Your task to perform on an android device: turn off sleep mode Image 0: 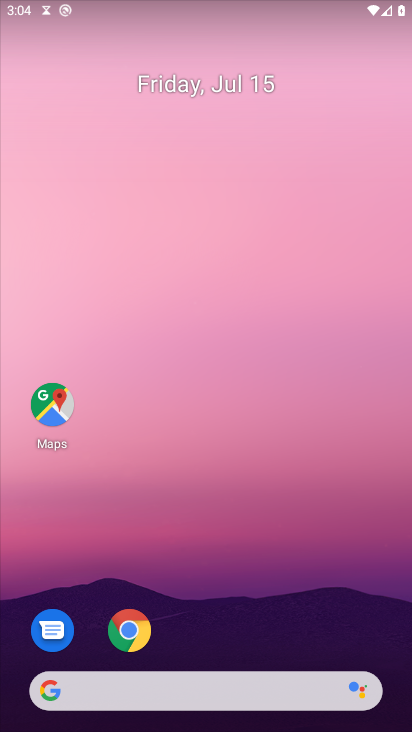
Step 0: press home button
Your task to perform on an android device: turn off sleep mode Image 1: 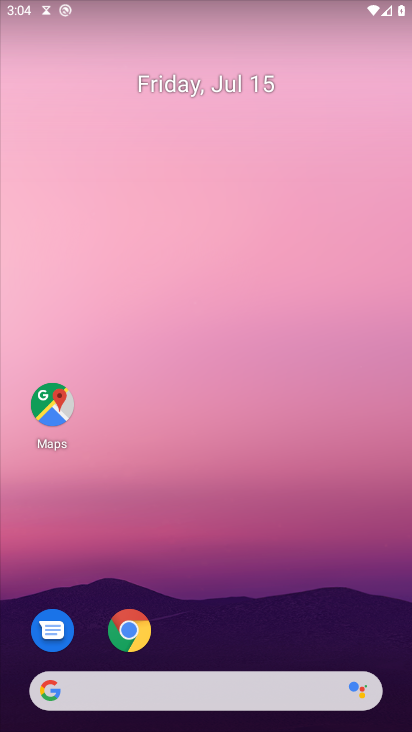
Step 1: drag from (218, 633) to (78, 14)
Your task to perform on an android device: turn off sleep mode Image 2: 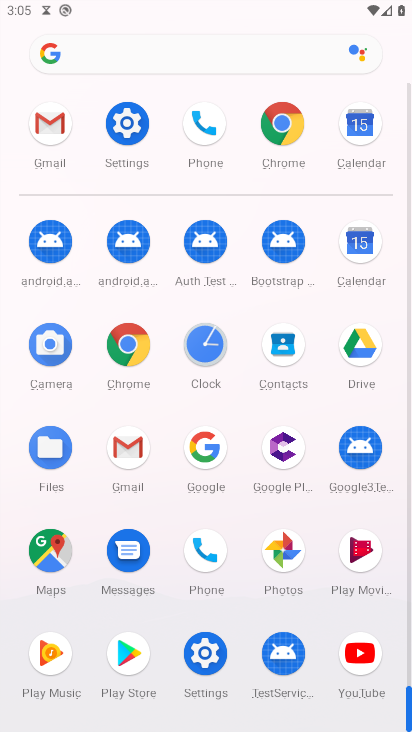
Step 2: click (117, 124)
Your task to perform on an android device: turn off sleep mode Image 3: 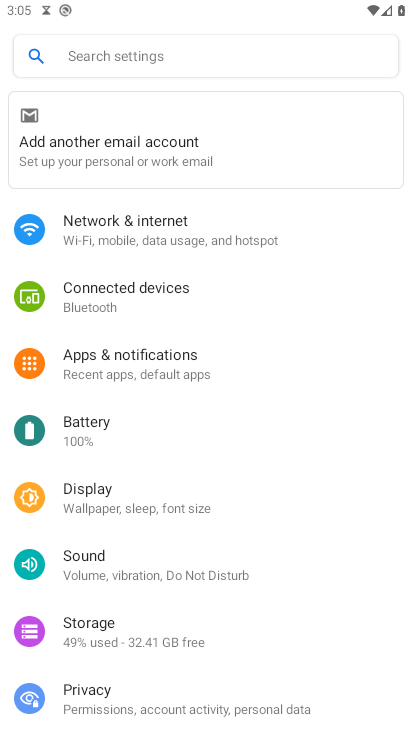
Step 3: click (93, 495)
Your task to perform on an android device: turn off sleep mode Image 4: 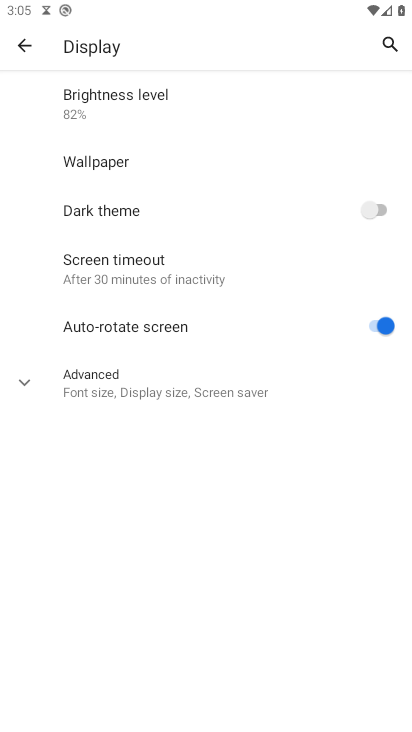
Step 4: task complete